Your task to perform on an android device: Go to Google maps Image 0: 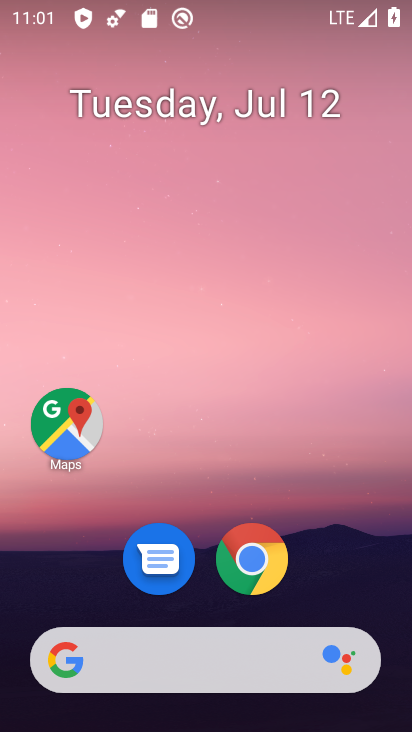
Step 0: drag from (232, 627) to (200, 159)
Your task to perform on an android device: Go to Google maps Image 1: 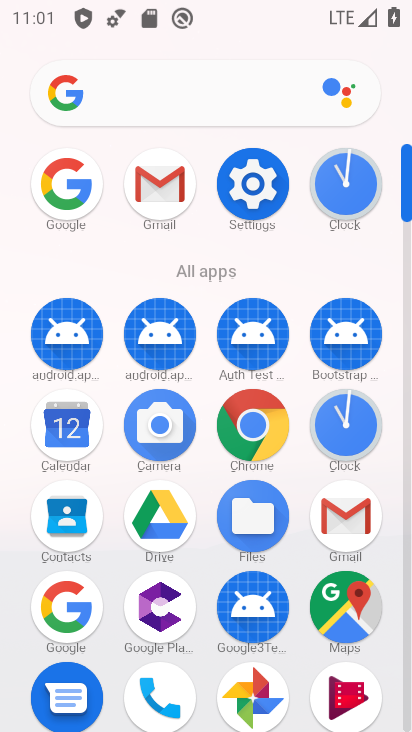
Step 1: drag from (181, 517) to (193, 355)
Your task to perform on an android device: Go to Google maps Image 2: 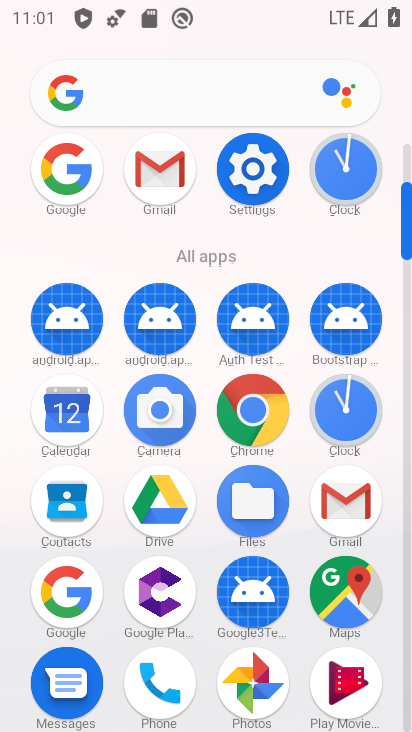
Step 2: click (338, 593)
Your task to perform on an android device: Go to Google maps Image 3: 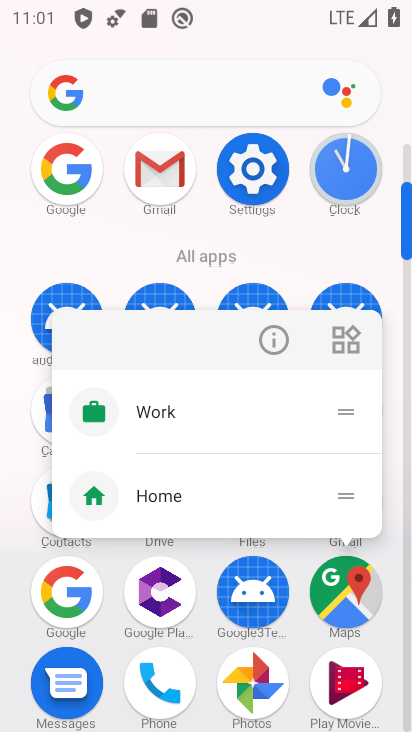
Step 3: click (359, 604)
Your task to perform on an android device: Go to Google maps Image 4: 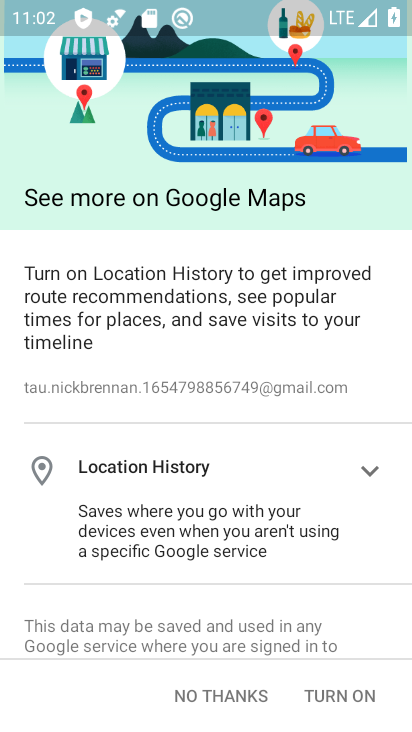
Step 4: click (353, 692)
Your task to perform on an android device: Go to Google maps Image 5: 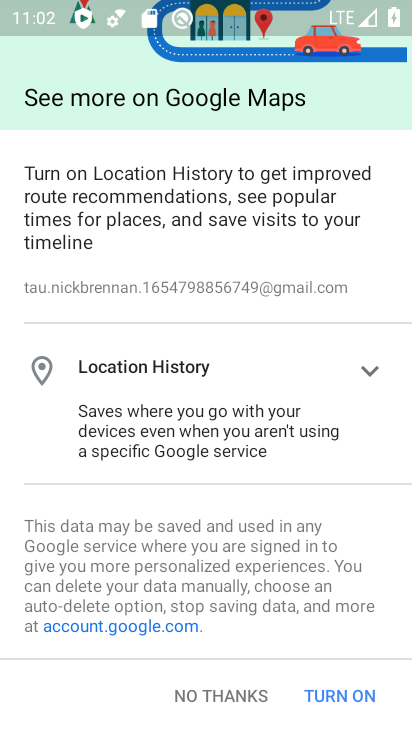
Step 5: click (353, 692)
Your task to perform on an android device: Go to Google maps Image 6: 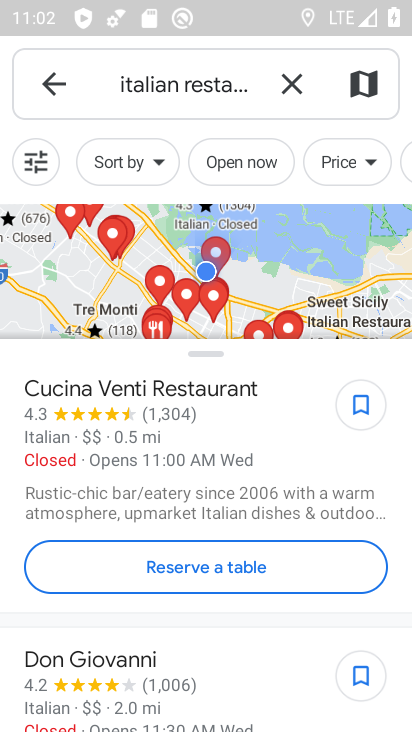
Step 6: task complete